Your task to perform on an android device: all mails in gmail Image 0: 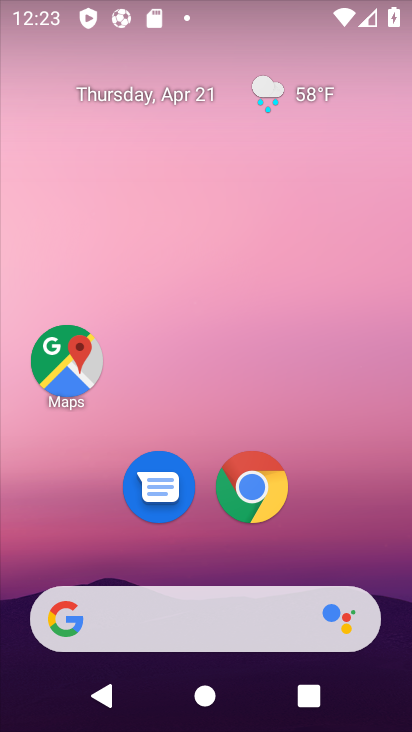
Step 0: drag from (376, 451) to (350, 16)
Your task to perform on an android device: all mails in gmail Image 1: 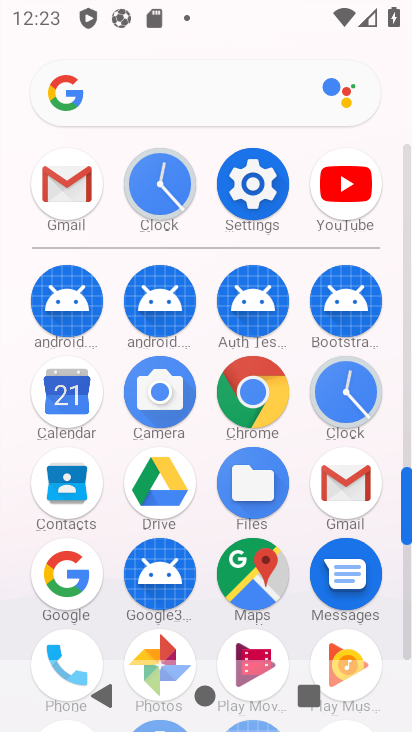
Step 1: click (65, 181)
Your task to perform on an android device: all mails in gmail Image 2: 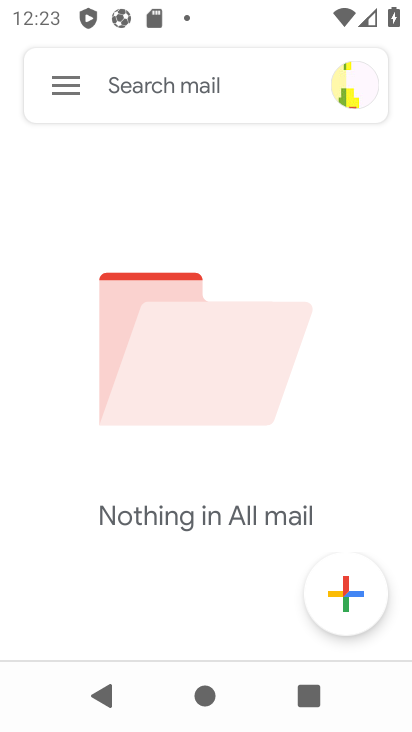
Step 2: task complete